Your task to perform on an android device: Go to Amazon Image 0: 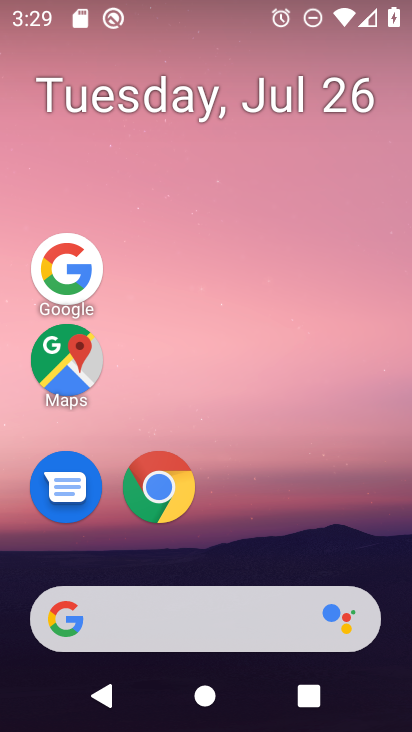
Step 0: drag from (221, 507) to (218, 0)
Your task to perform on an android device: Go to Amazon Image 1: 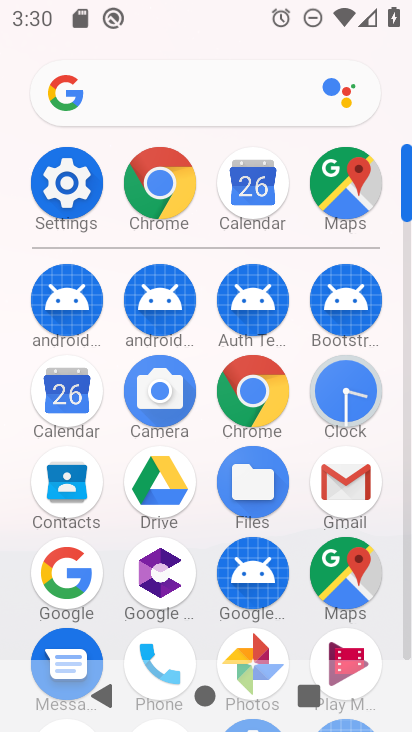
Step 1: click (161, 193)
Your task to perform on an android device: Go to Amazon Image 2: 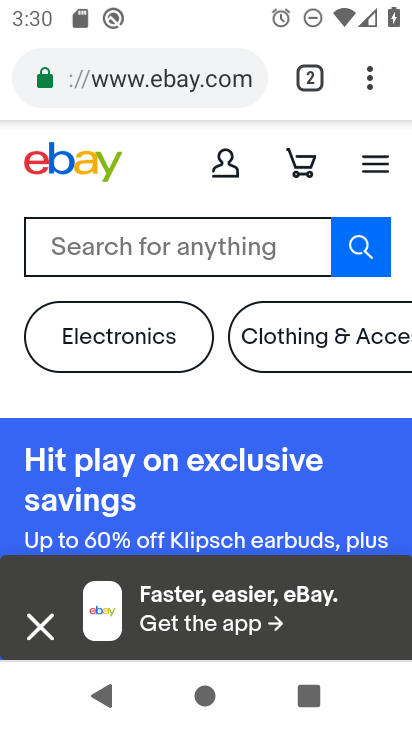
Step 2: drag from (229, 72) to (229, 316)
Your task to perform on an android device: Go to Amazon Image 3: 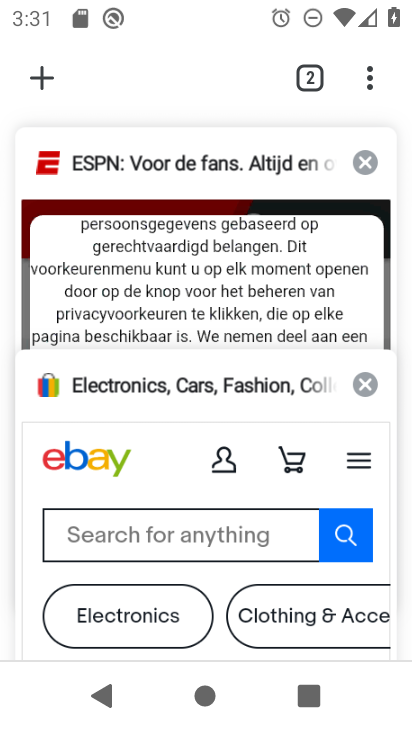
Step 3: click (41, 84)
Your task to perform on an android device: Go to Amazon Image 4: 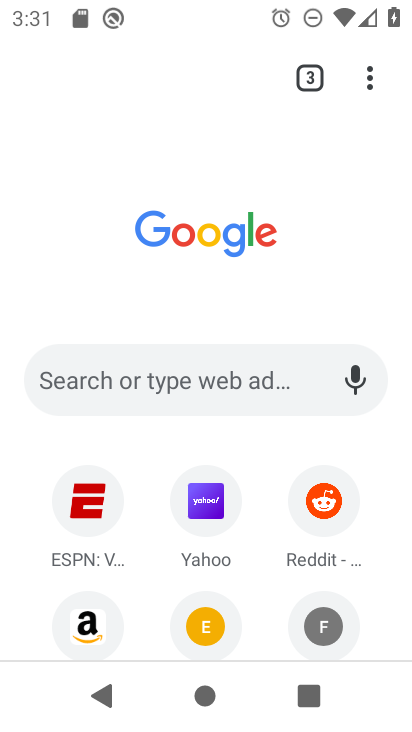
Step 4: click (90, 614)
Your task to perform on an android device: Go to Amazon Image 5: 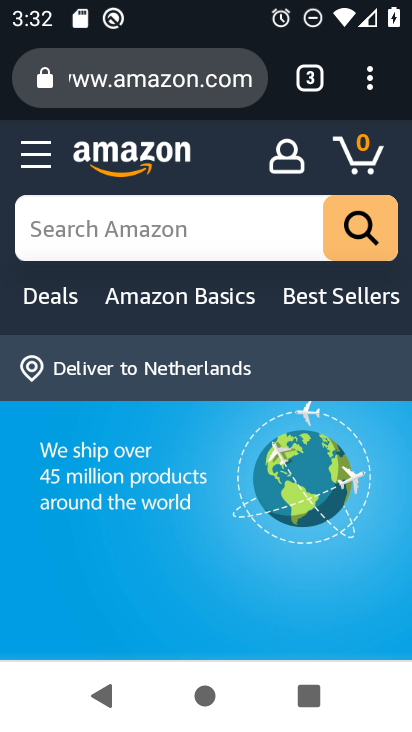
Step 5: task complete